Your task to perform on an android device: What's on my calendar today? Image 0: 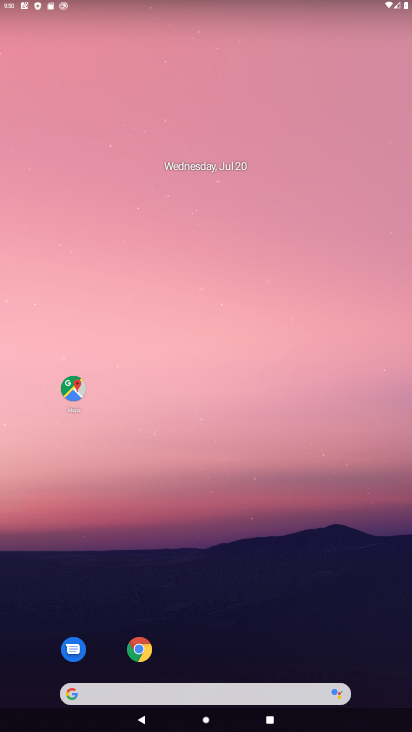
Step 0: drag from (371, 632) to (336, 191)
Your task to perform on an android device: What's on my calendar today? Image 1: 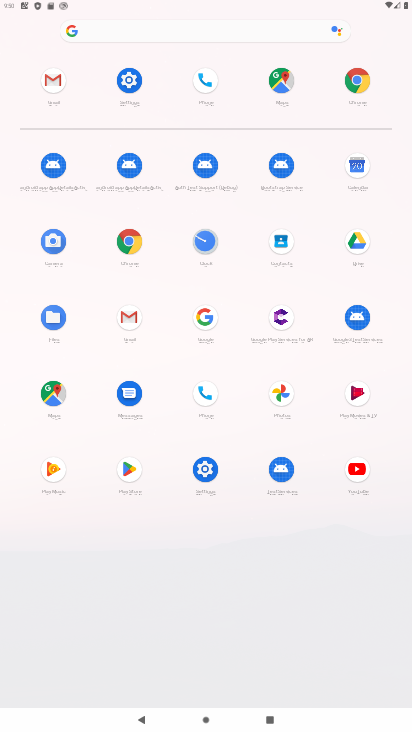
Step 1: click (355, 175)
Your task to perform on an android device: What's on my calendar today? Image 2: 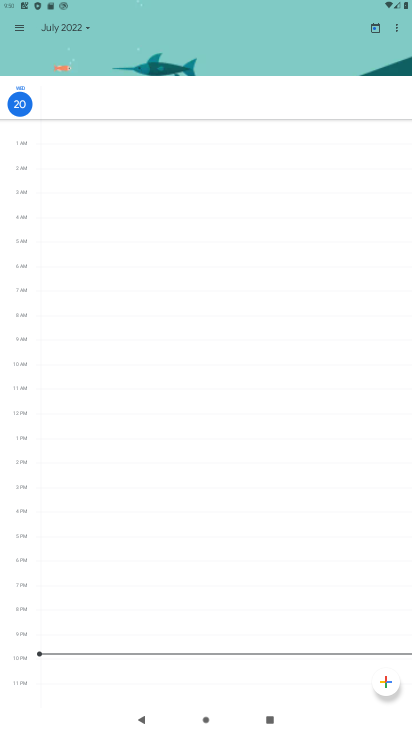
Step 2: task complete